Your task to perform on an android device: Show me popular games on the Play Store Image 0: 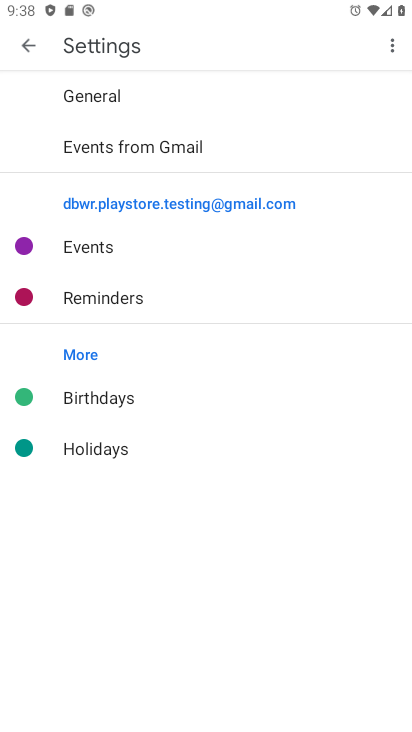
Step 0: drag from (343, 599) to (407, 550)
Your task to perform on an android device: Show me popular games on the Play Store Image 1: 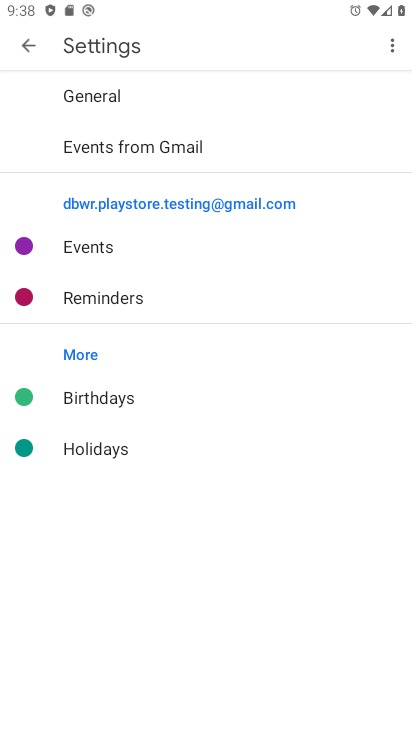
Step 1: press home button
Your task to perform on an android device: Show me popular games on the Play Store Image 2: 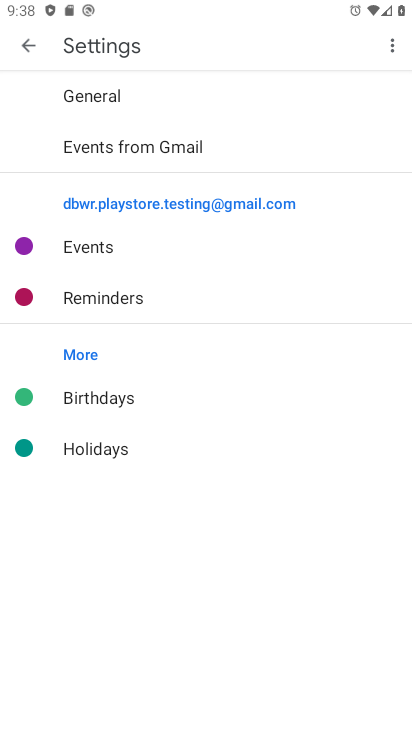
Step 2: drag from (407, 550) to (409, 604)
Your task to perform on an android device: Show me popular games on the Play Store Image 3: 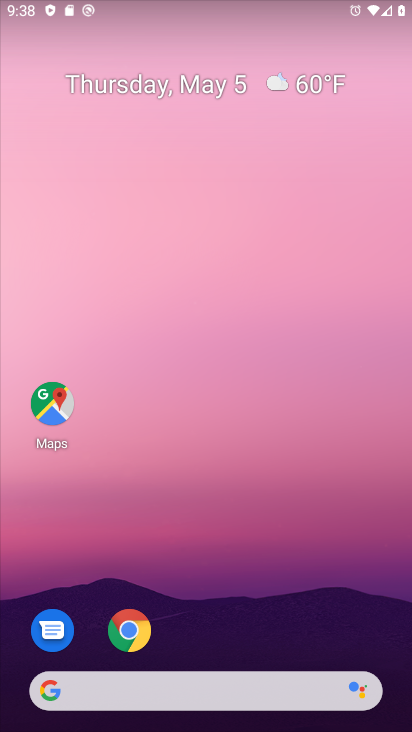
Step 3: drag from (230, 582) to (251, 139)
Your task to perform on an android device: Show me popular games on the Play Store Image 4: 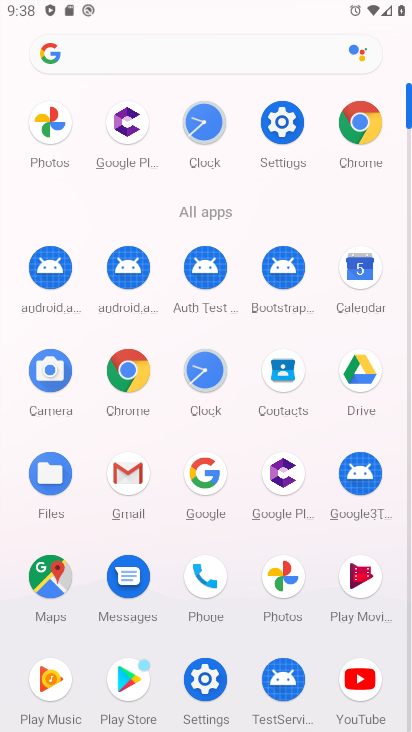
Step 4: click (133, 668)
Your task to perform on an android device: Show me popular games on the Play Store Image 5: 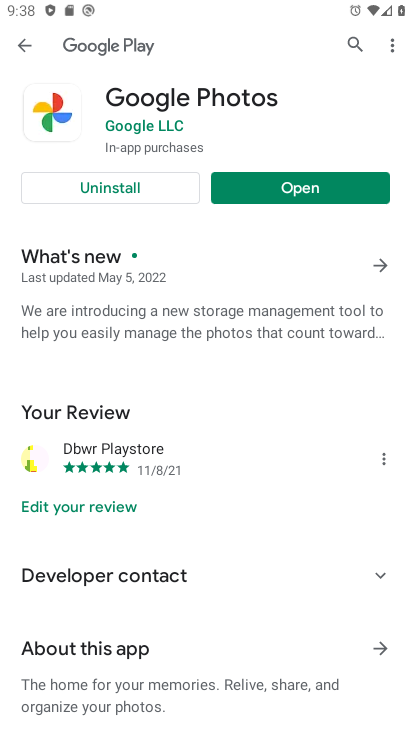
Step 5: press home button
Your task to perform on an android device: Show me popular games on the Play Store Image 6: 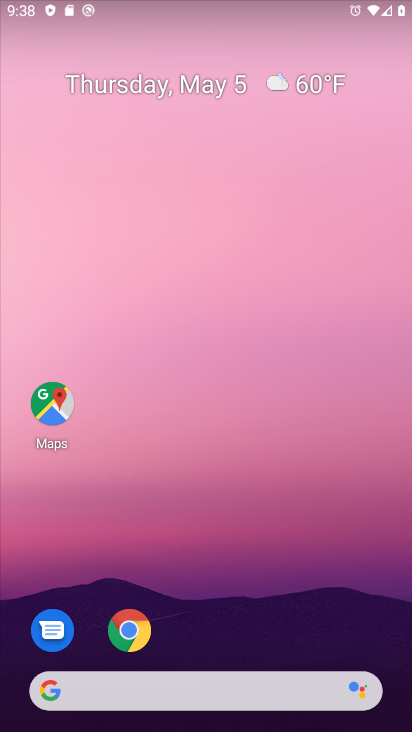
Step 6: drag from (215, 570) to (219, 210)
Your task to perform on an android device: Show me popular games on the Play Store Image 7: 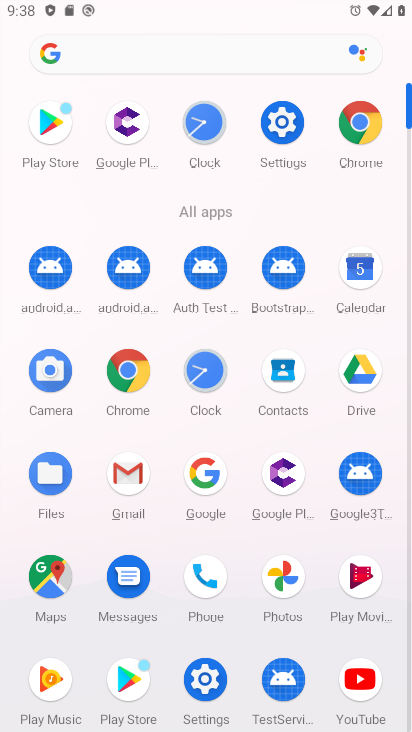
Step 7: click (134, 689)
Your task to perform on an android device: Show me popular games on the Play Store Image 8: 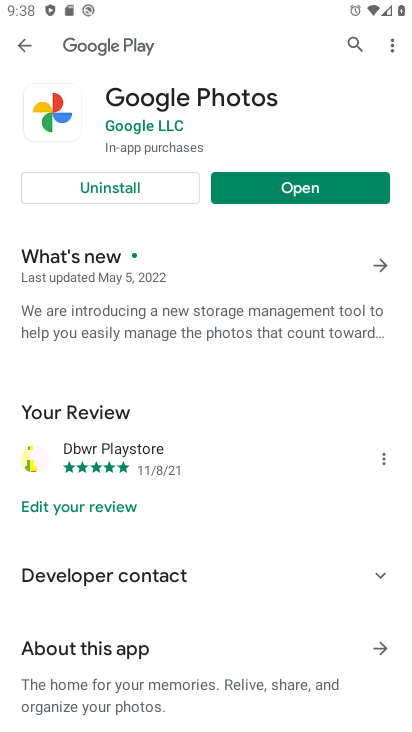
Step 8: press back button
Your task to perform on an android device: Show me popular games on the Play Store Image 9: 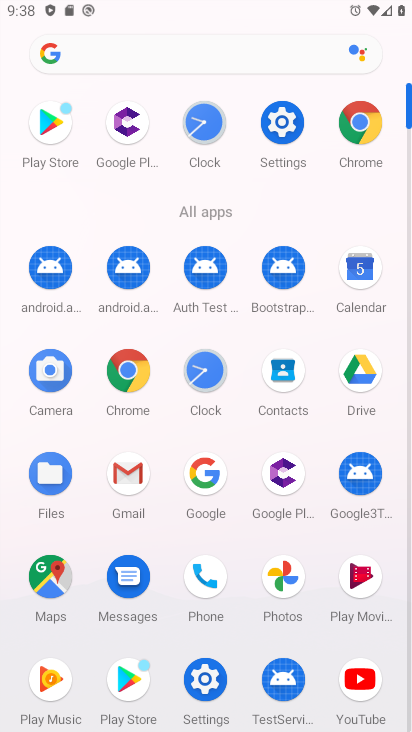
Step 9: click (121, 673)
Your task to perform on an android device: Show me popular games on the Play Store Image 10: 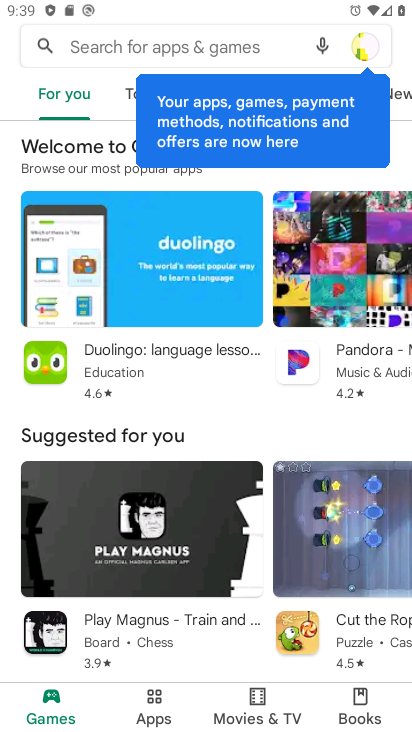
Step 10: drag from (228, 638) to (226, 303)
Your task to perform on an android device: Show me popular games on the Play Store Image 11: 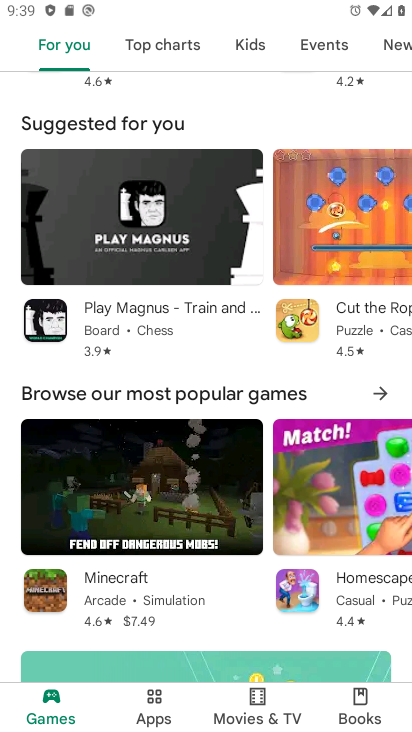
Step 11: click (229, 396)
Your task to perform on an android device: Show me popular games on the Play Store Image 12: 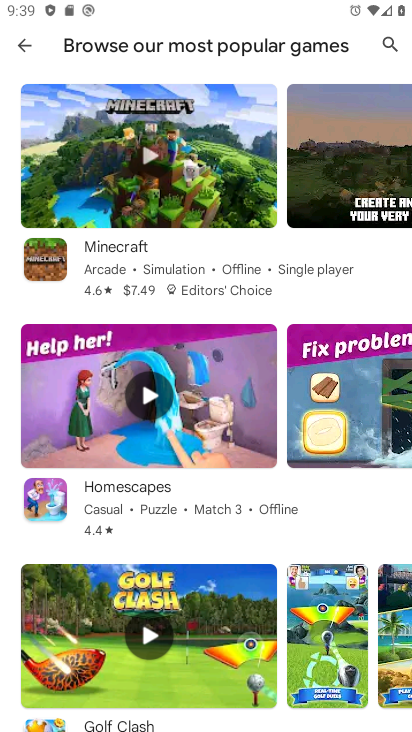
Step 12: task complete